Your task to perform on an android device: Search for sushi restaurants on Maps Image 0: 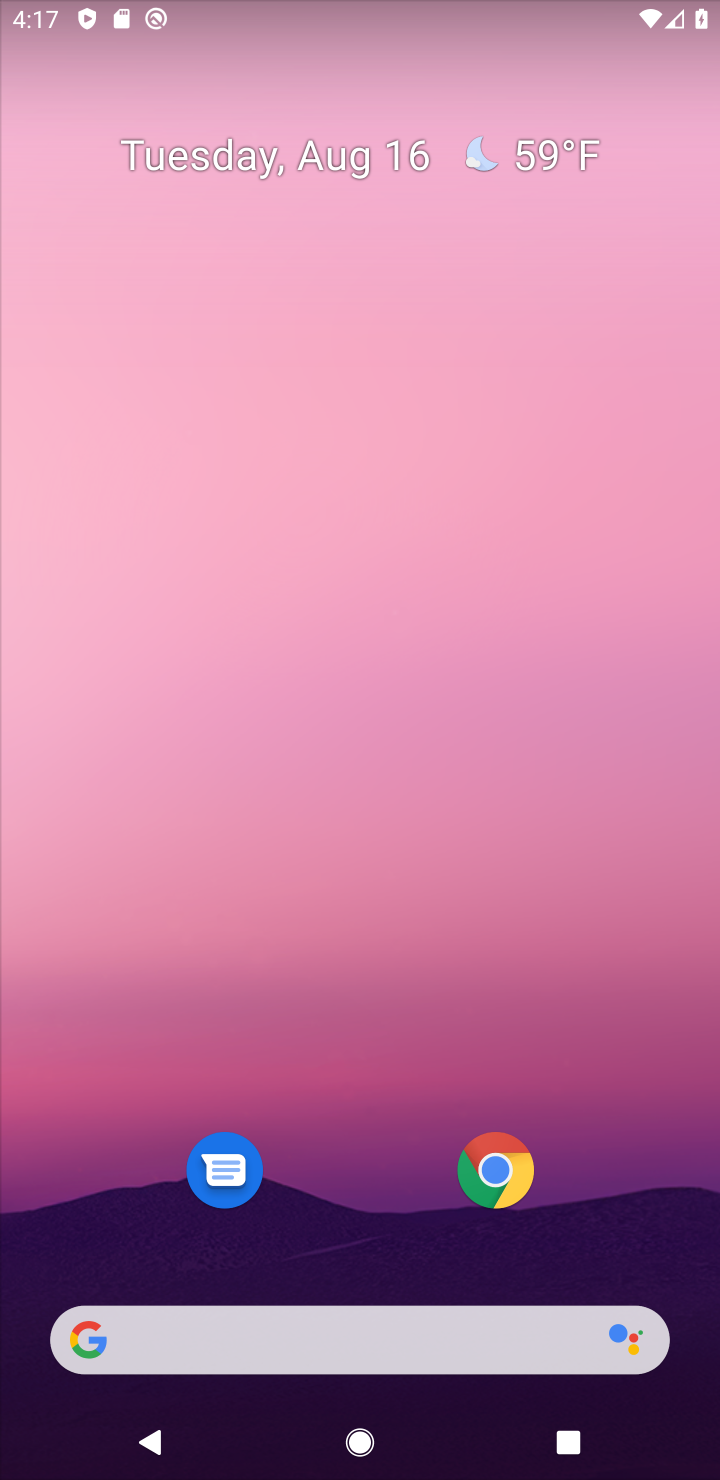
Step 0: drag from (383, 1313) to (583, 49)
Your task to perform on an android device: Search for sushi restaurants on Maps Image 1: 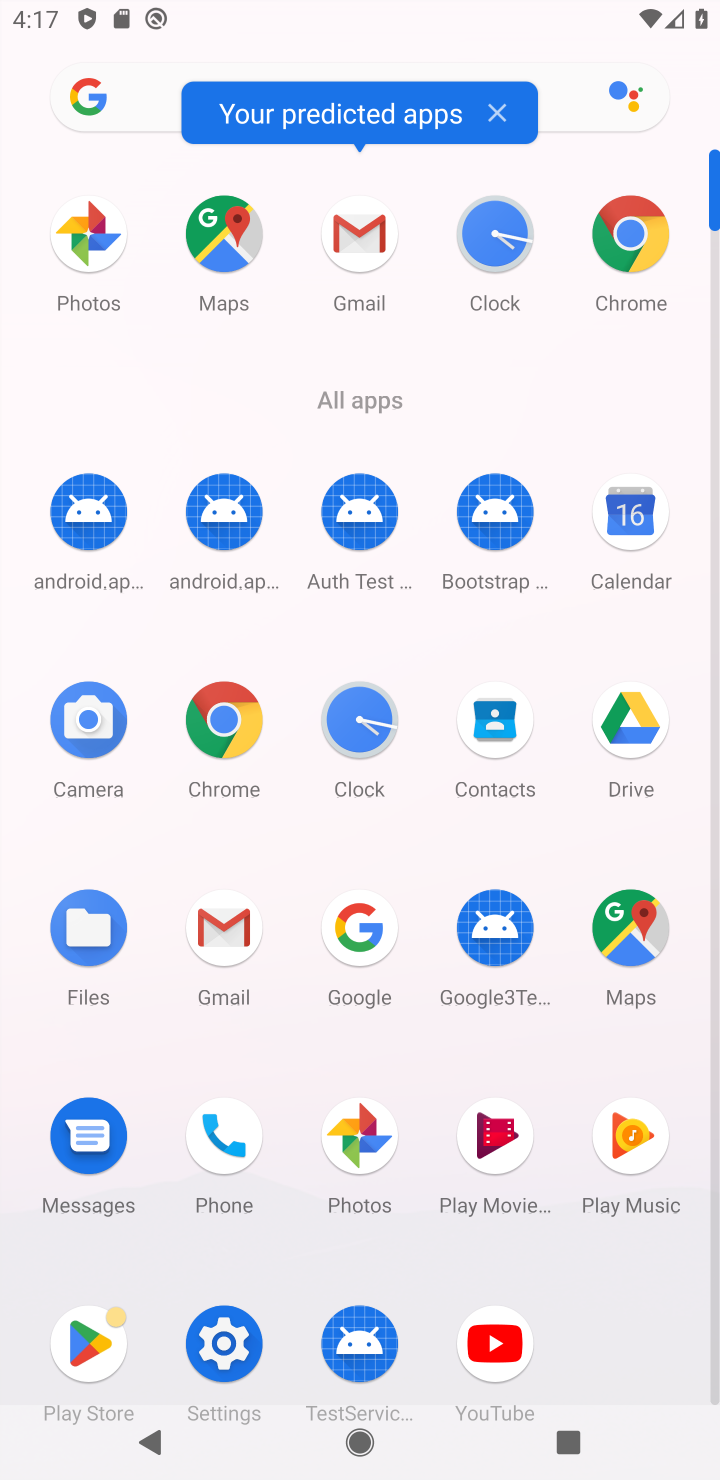
Step 1: click (635, 945)
Your task to perform on an android device: Search for sushi restaurants on Maps Image 2: 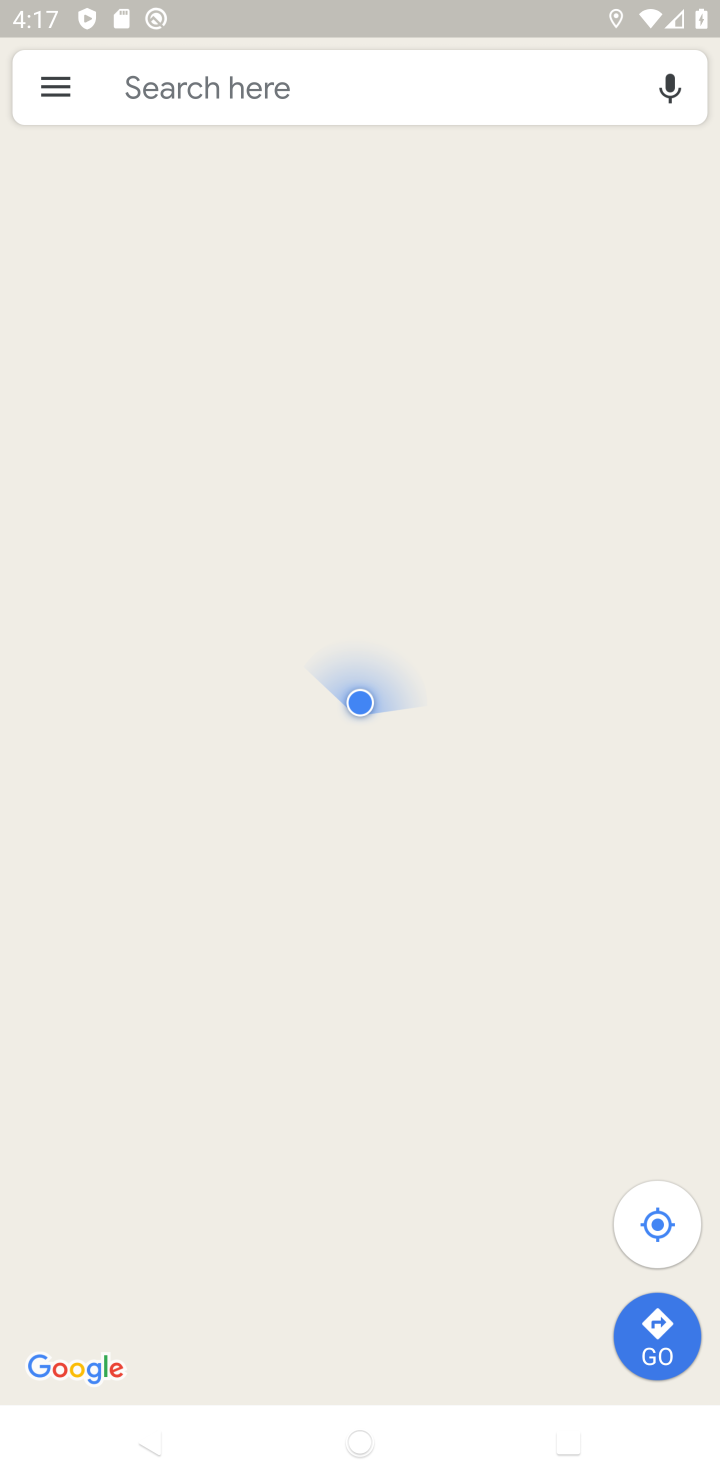
Step 2: click (276, 114)
Your task to perform on an android device: Search for sushi restaurants on Maps Image 3: 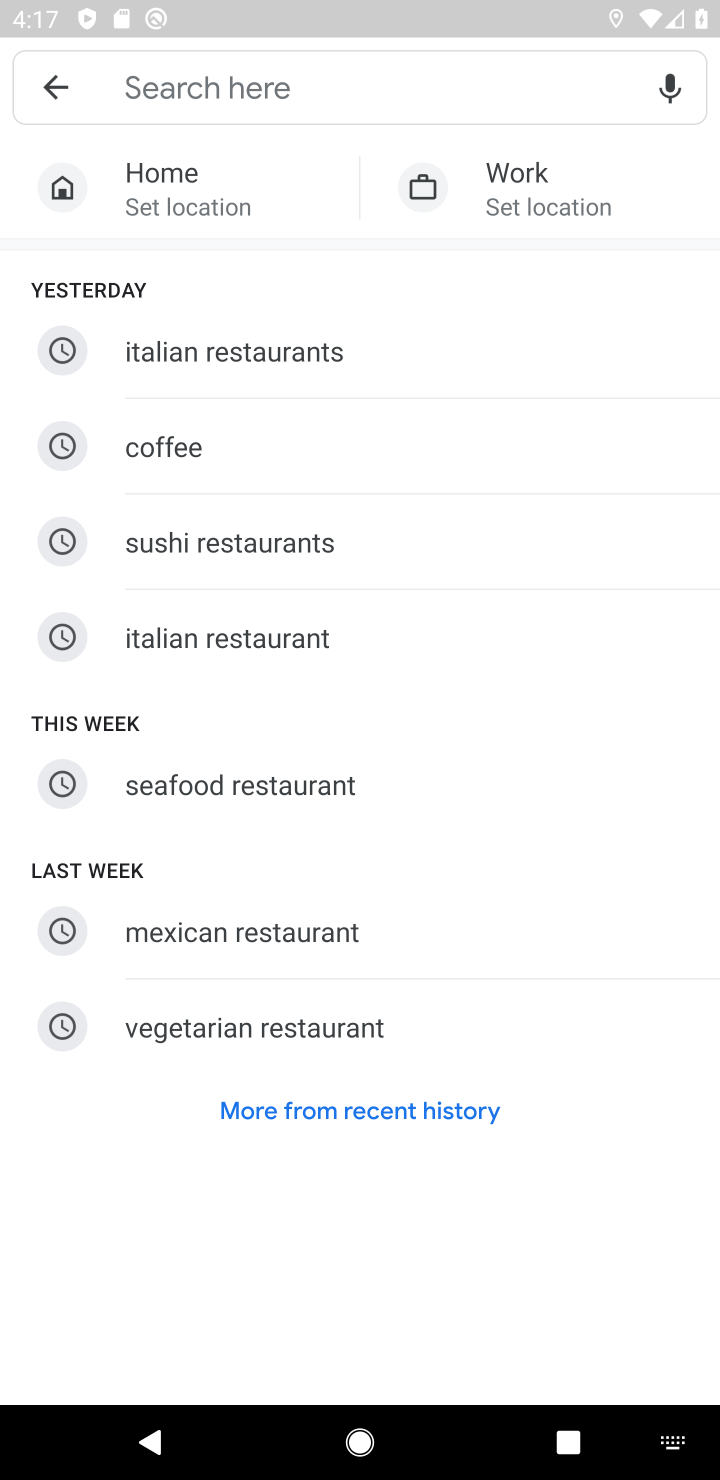
Step 3: click (149, 550)
Your task to perform on an android device: Search for sushi restaurants on Maps Image 4: 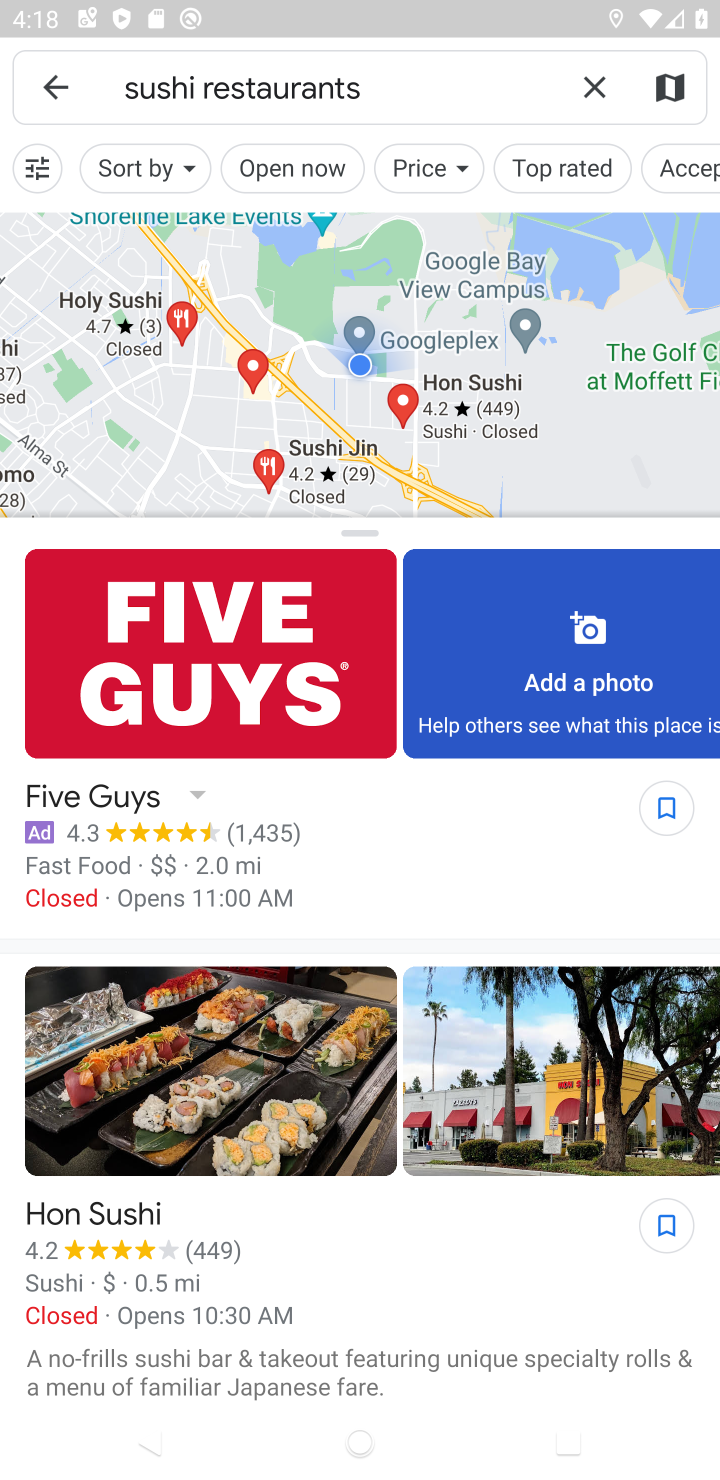
Step 4: task complete